Your task to perform on an android device: add a contact in the contacts app Image 0: 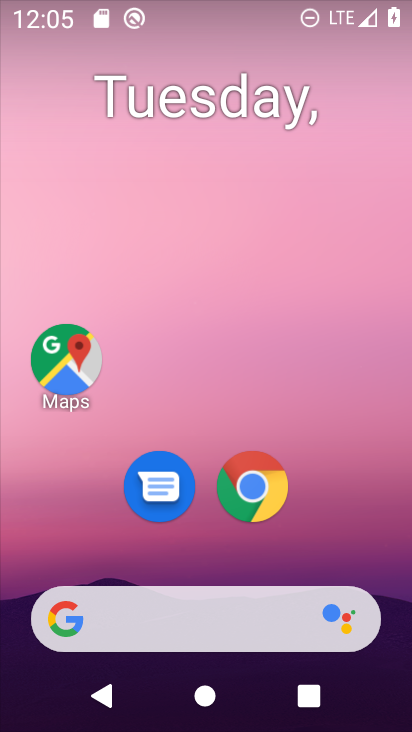
Step 0: press home button
Your task to perform on an android device: add a contact in the contacts app Image 1: 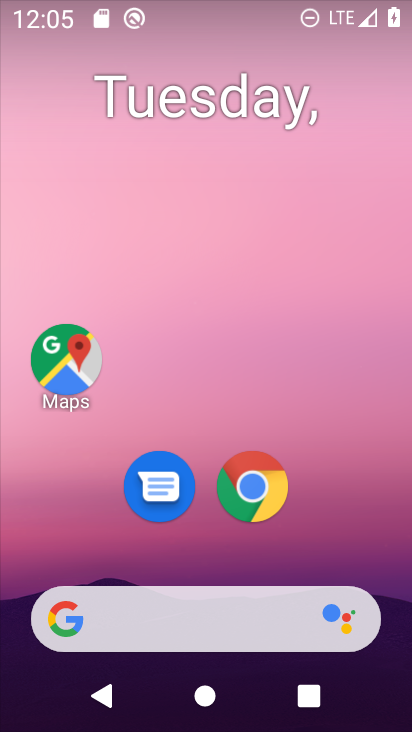
Step 1: drag from (12, 620) to (261, 200)
Your task to perform on an android device: add a contact in the contacts app Image 2: 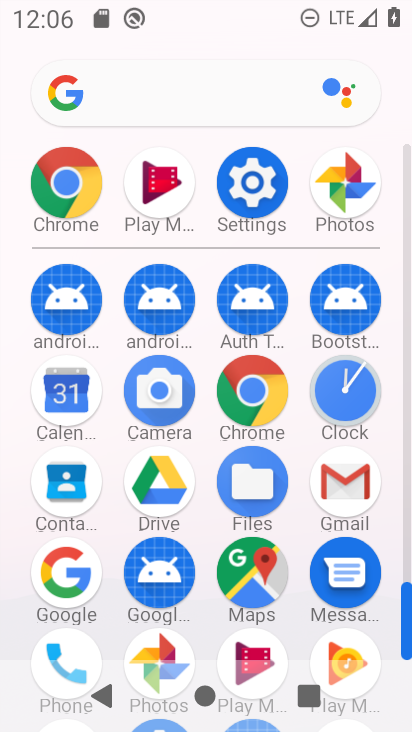
Step 2: click (70, 649)
Your task to perform on an android device: add a contact in the contacts app Image 3: 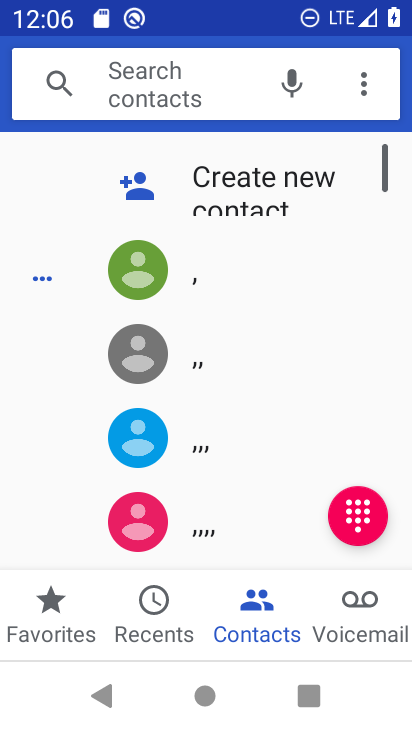
Step 3: click (117, 180)
Your task to perform on an android device: add a contact in the contacts app Image 4: 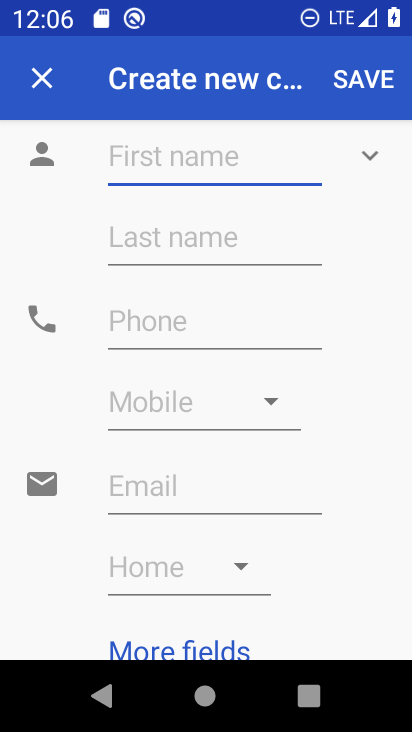
Step 4: click (215, 163)
Your task to perform on an android device: add a contact in the contacts app Image 5: 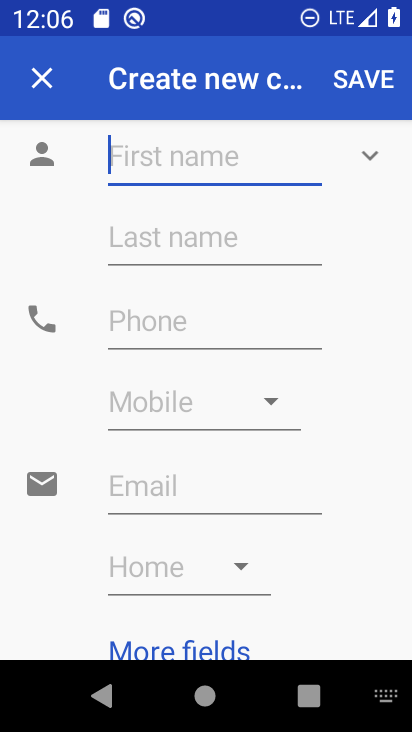
Step 5: type "vbgvfdr"
Your task to perform on an android device: add a contact in the contacts app Image 6: 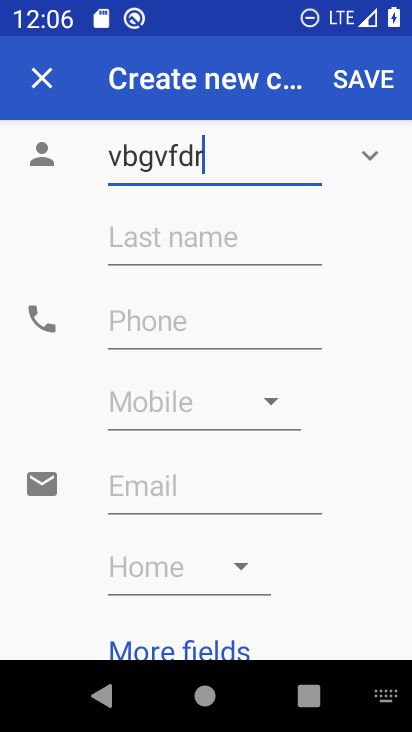
Step 6: type ""
Your task to perform on an android device: add a contact in the contacts app Image 7: 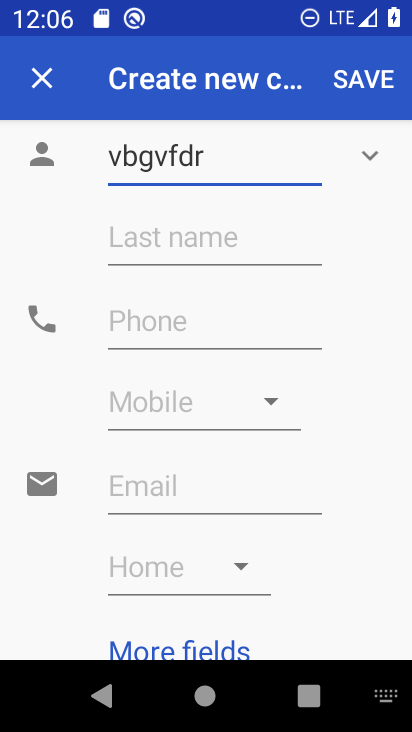
Step 7: click (339, 77)
Your task to perform on an android device: add a contact in the contacts app Image 8: 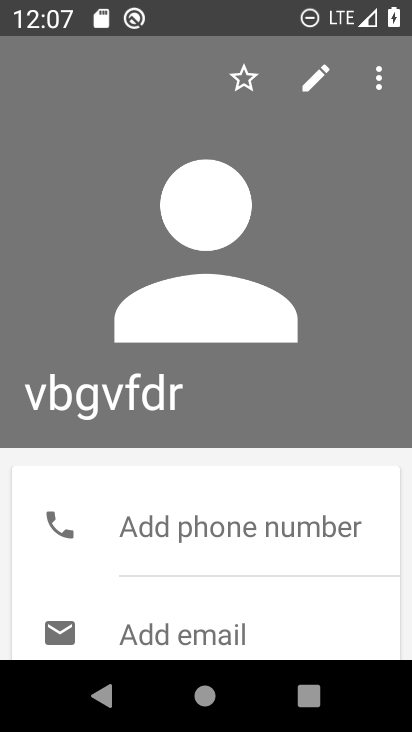
Step 8: task complete